Your task to perform on an android device: toggle translation in the chrome app Image 0: 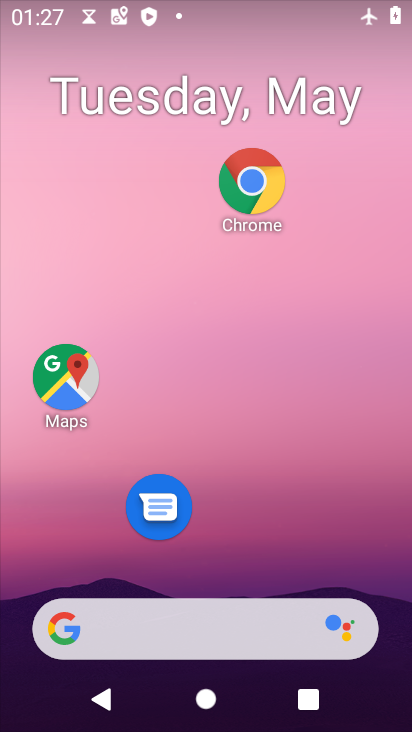
Step 0: drag from (261, 585) to (298, 283)
Your task to perform on an android device: toggle translation in the chrome app Image 1: 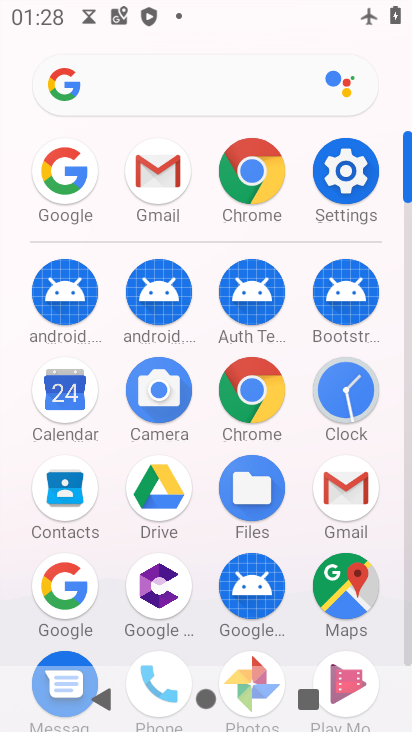
Step 1: click (259, 164)
Your task to perform on an android device: toggle translation in the chrome app Image 2: 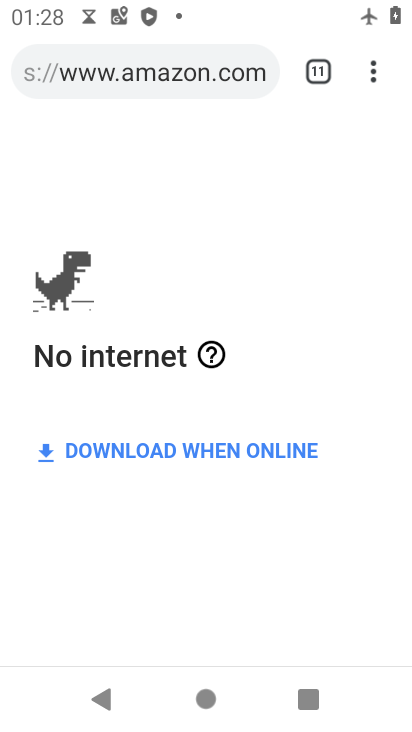
Step 2: click (369, 67)
Your task to perform on an android device: toggle translation in the chrome app Image 3: 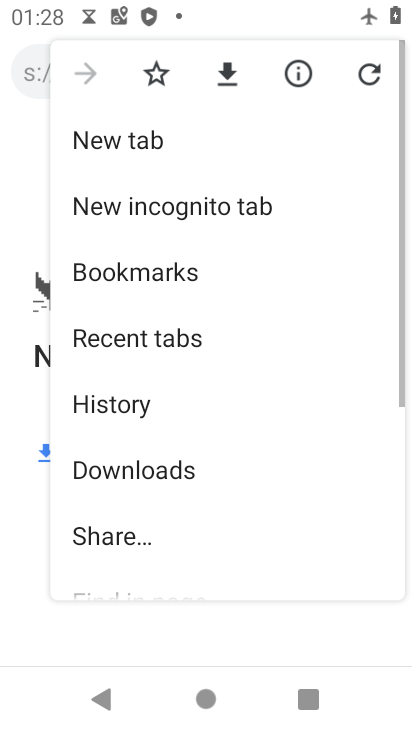
Step 3: drag from (226, 528) to (278, 206)
Your task to perform on an android device: toggle translation in the chrome app Image 4: 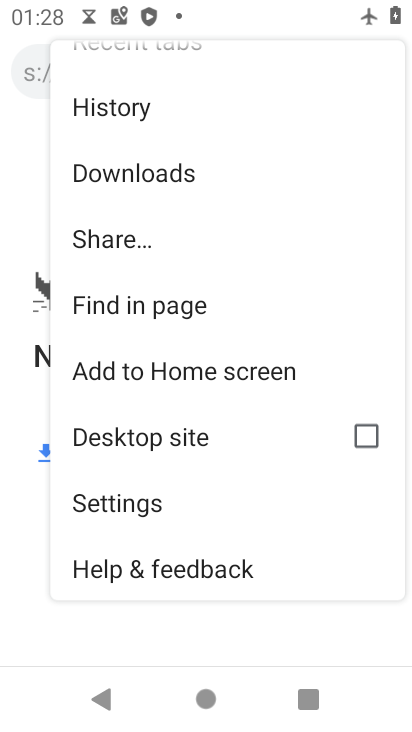
Step 4: click (174, 498)
Your task to perform on an android device: toggle translation in the chrome app Image 5: 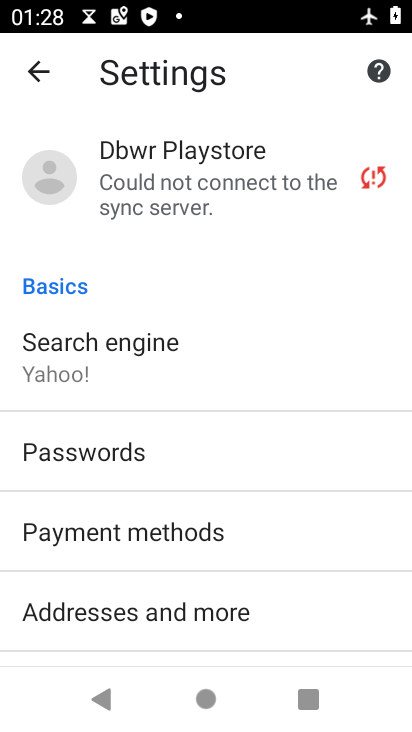
Step 5: drag from (182, 497) to (256, 240)
Your task to perform on an android device: toggle translation in the chrome app Image 6: 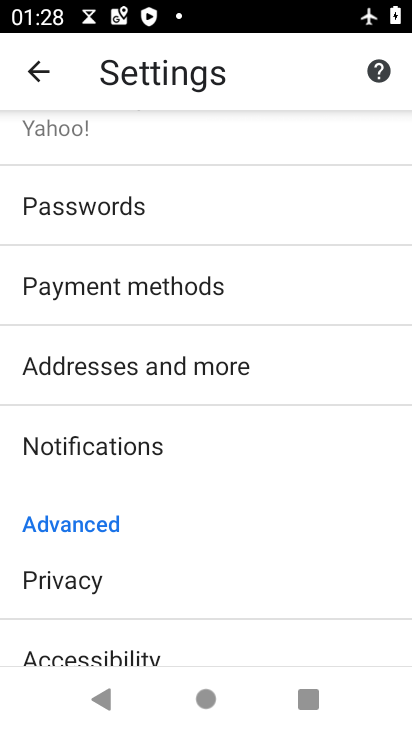
Step 6: drag from (208, 547) to (257, 189)
Your task to perform on an android device: toggle translation in the chrome app Image 7: 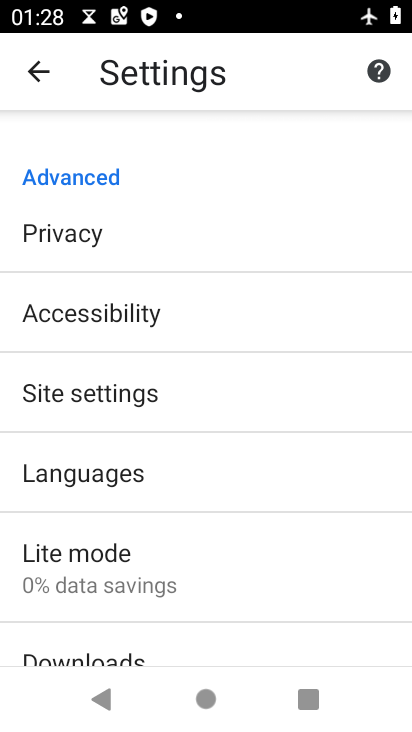
Step 7: click (166, 485)
Your task to perform on an android device: toggle translation in the chrome app Image 8: 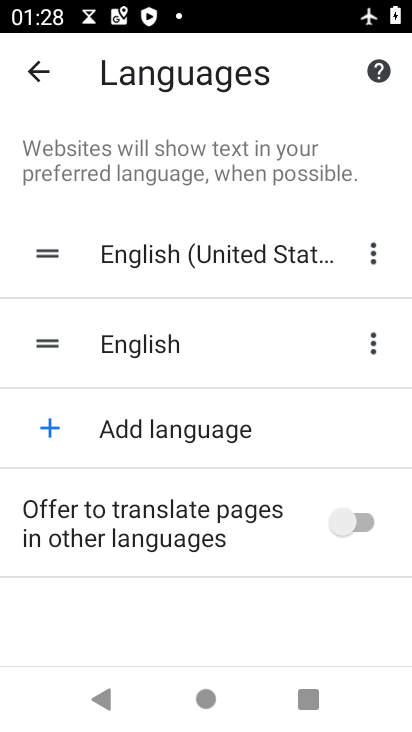
Step 8: click (343, 523)
Your task to perform on an android device: toggle translation in the chrome app Image 9: 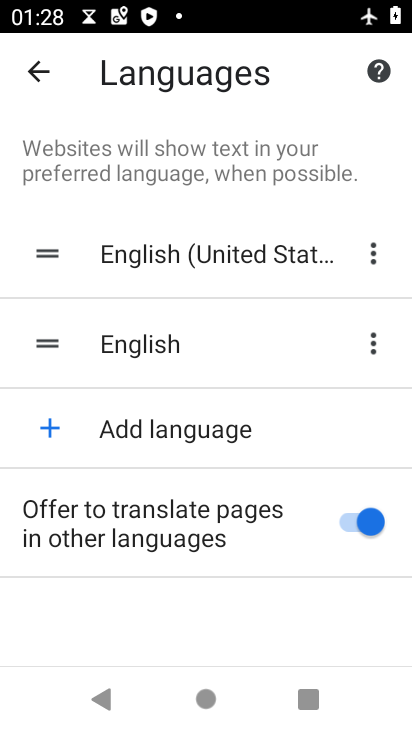
Step 9: click (80, 640)
Your task to perform on an android device: toggle translation in the chrome app Image 10: 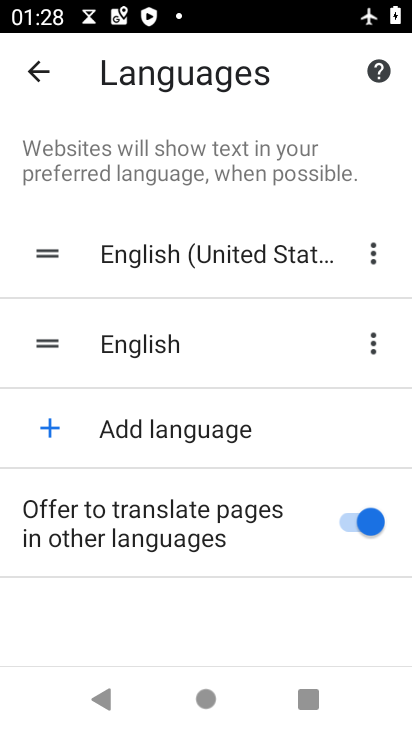
Step 10: task complete